Your task to perform on an android device: open a new tab in the chrome app Image 0: 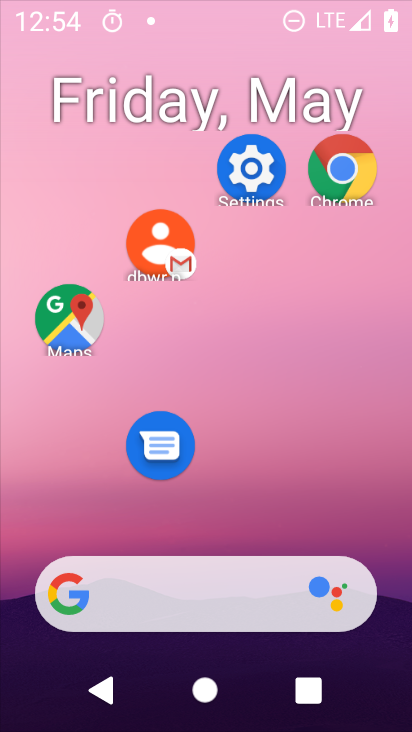
Step 0: drag from (204, 420) to (205, 278)
Your task to perform on an android device: open a new tab in the chrome app Image 1: 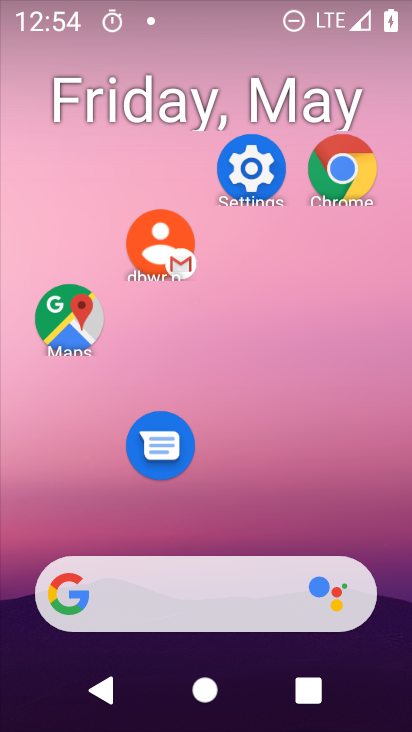
Step 1: drag from (215, 496) to (177, 237)
Your task to perform on an android device: open a new tab in the chrome app Image 2: 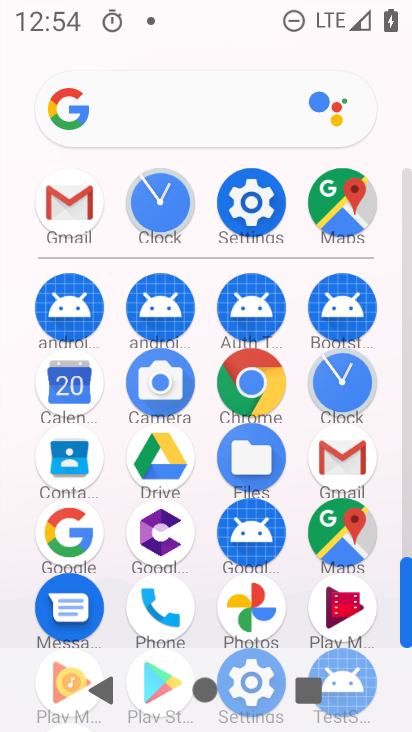
Step 2: click (251, 384)
Your task to perform on an android device: open a new tab in the chrome app Image 3: 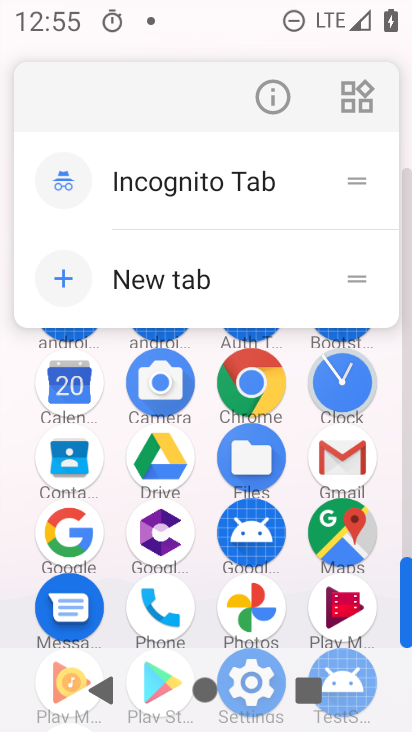
Step 3: click (265, 96)
Your task to perform on an android device: open a new tab in the chrome app Image 4: 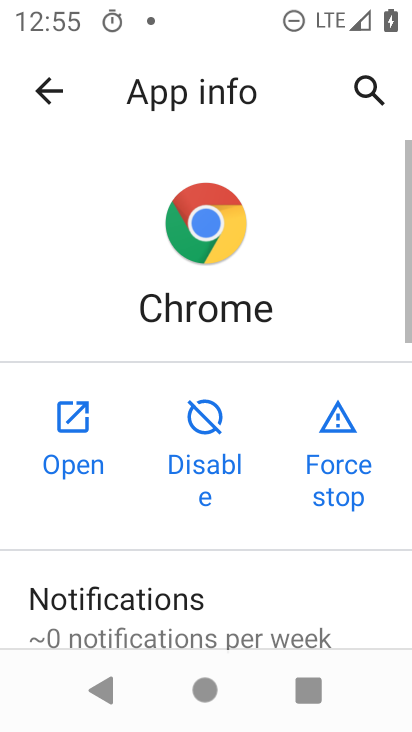
Step 4: click (64, 416)
Your task to perform on an android device: open a new tab in the chrome app Image 5: 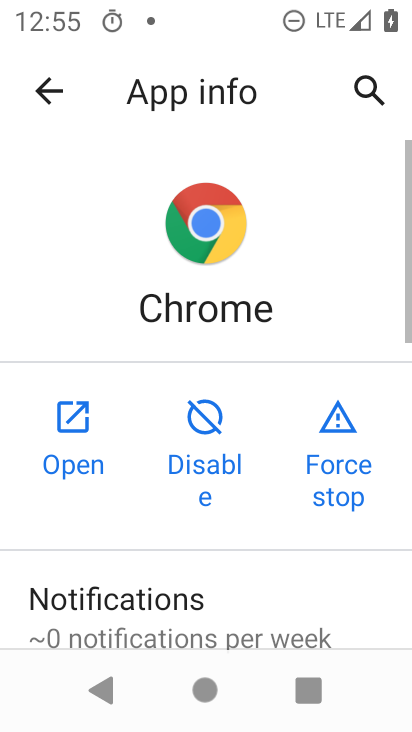
Step 5: click (64, 416)
Your task to perform on an android device: open a new tab in the chrome app Image 6: 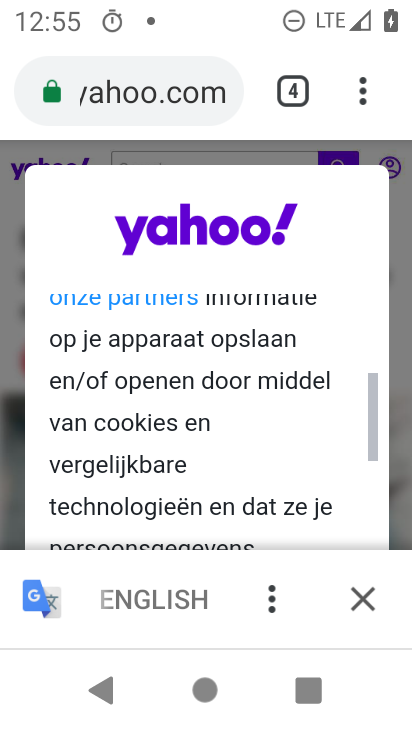
Step 6: drag from (181, 406) to (185, 120)
Your task to perform on an android device: open a new tab in the chrome app Image 7: 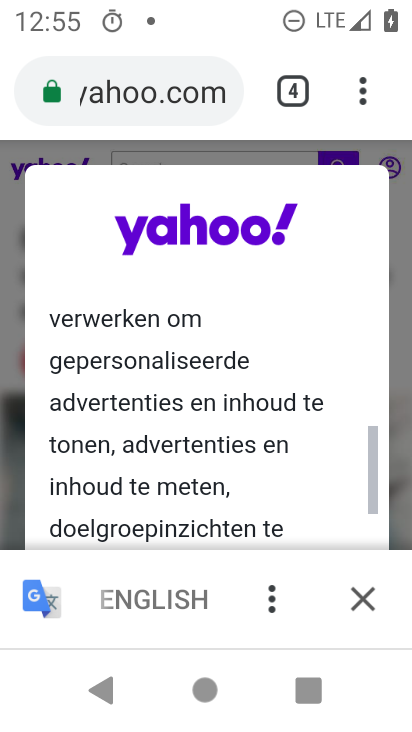
Step 7: click (279, 100)
Your task to perform on an android device: open a new tab in the chrome app Image 8: 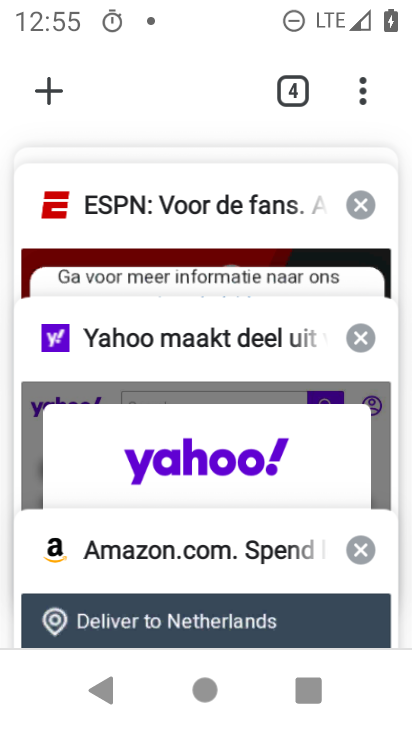
Step 8: click (48, 106)
Your task to perform on an android device: open a new tab in the chrome app Image 9: 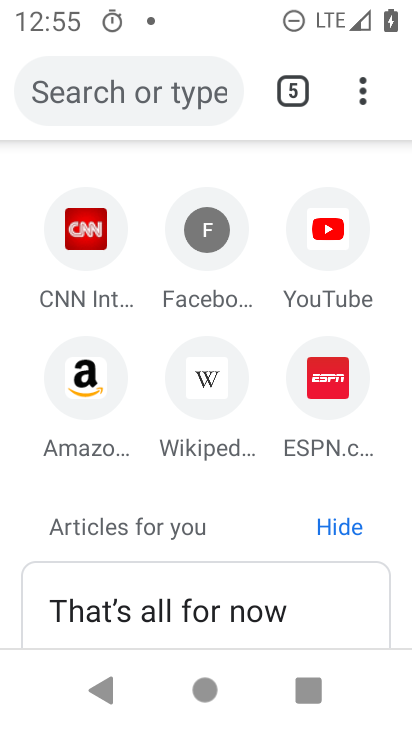
Step 9: task complete